Your task to perform on an android device: Search for vegetarian restaurants on Maps Image 0: 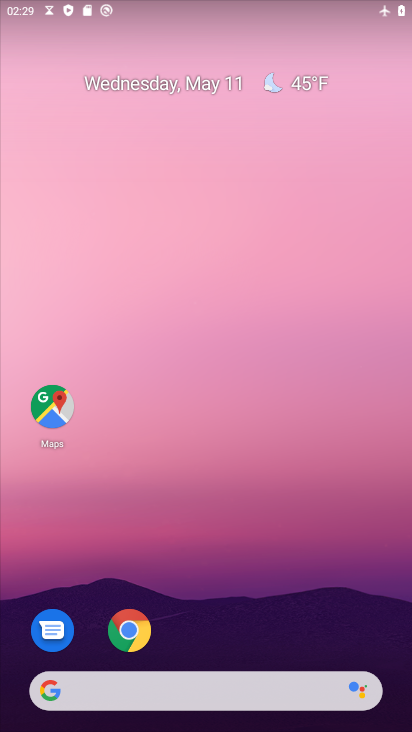
Step 0: drag from (227, 729) to (206, 163)
Your task to perform on an android device: Search for vegetarian restaurants on Maps Image 1: 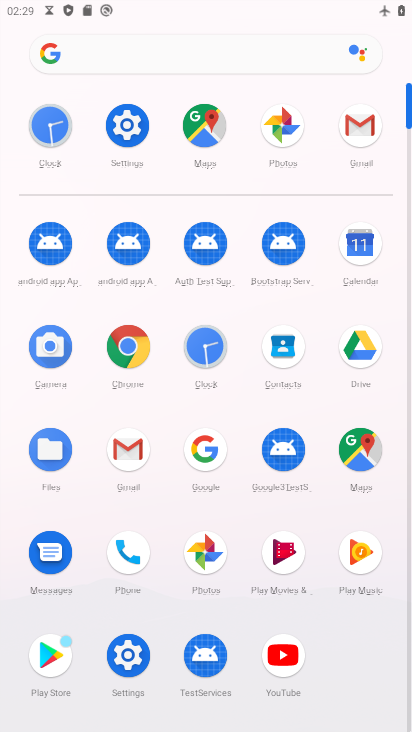
Step 1: click (361, 449)
Your task to perform on an android device: Search for vegetarian restaurants on Maps Image 2: 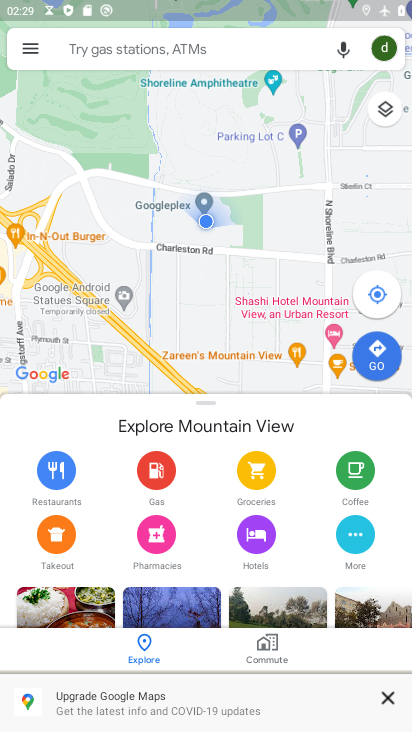
Step 2: click (176, 43)
Your task to perform on an android device: Search for vegetarian restaurants on Maps Image 3: 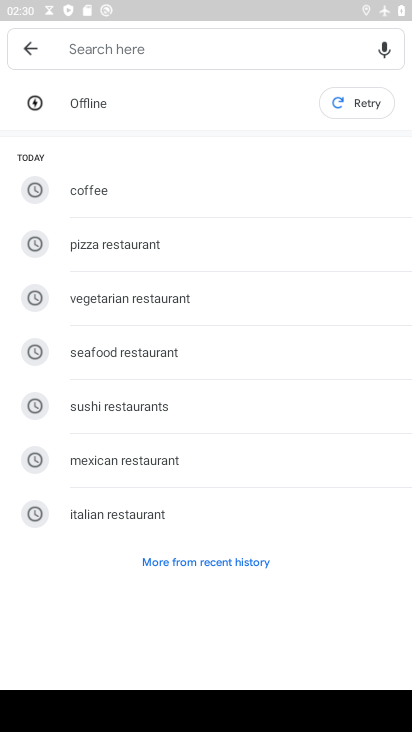
Step 3: type "vegetarian restaurants"
Your task to perform on an android device: Search for vegetarian restaurants on Maps Image 4: 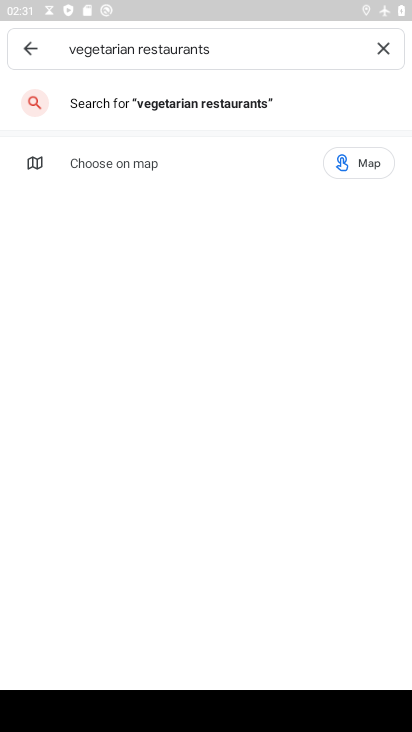
Step 4: task complete